Your task to perform on an android device: add a label to a message in the gmail app Image 0: 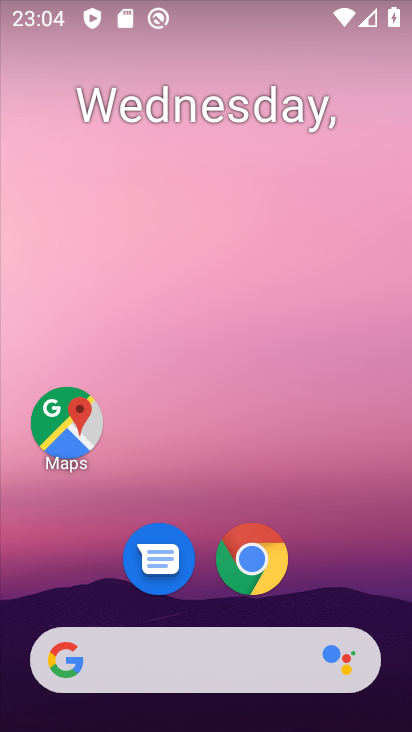
Step 0: drag from (212, 616) to (207, 126)
Your task to perform on an android device: add a label to a message in the gmail app Image 1: 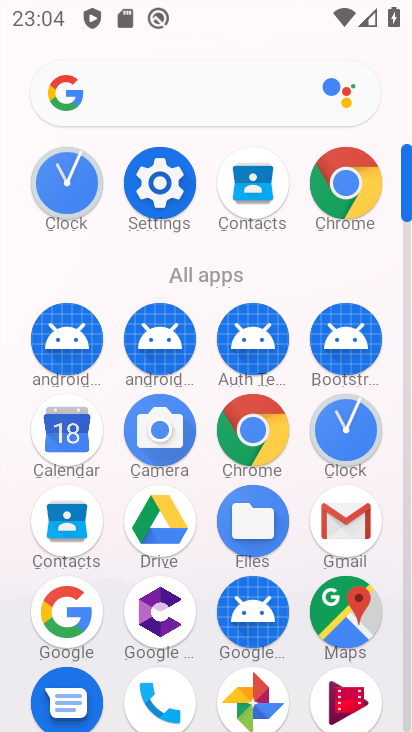
Step 1: click (343, 532)
Your task to perform on an android device: add a label to a message in the gmail app Image 2: 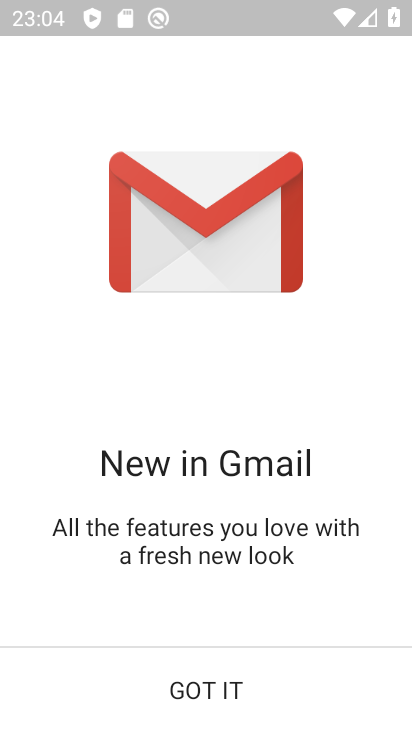
Step 2: click (226, 682)
Your task to perform on an android device: add a label to a message in the gmail app Image 3: 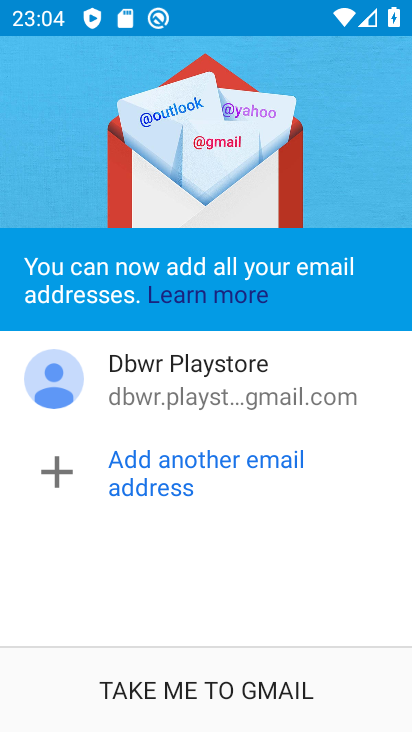
Step 3: click (212, 695)
Your task to perform on an android device: add a label to a message in the gmail app Image 4: 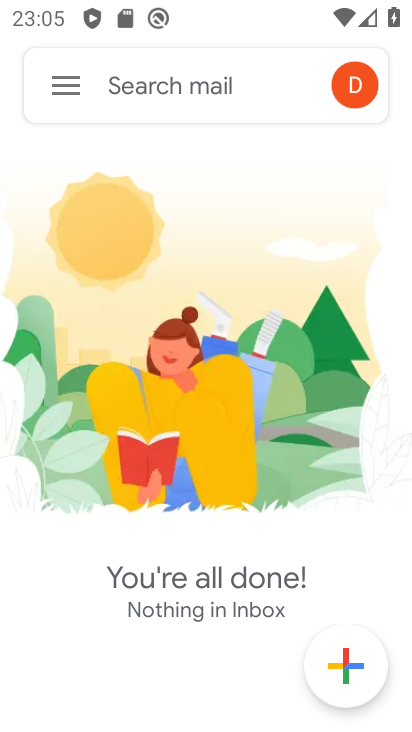
Step 4: click (68, 88)
Your task to perform on an android device: add a label to a message in the gmail app Image 5: 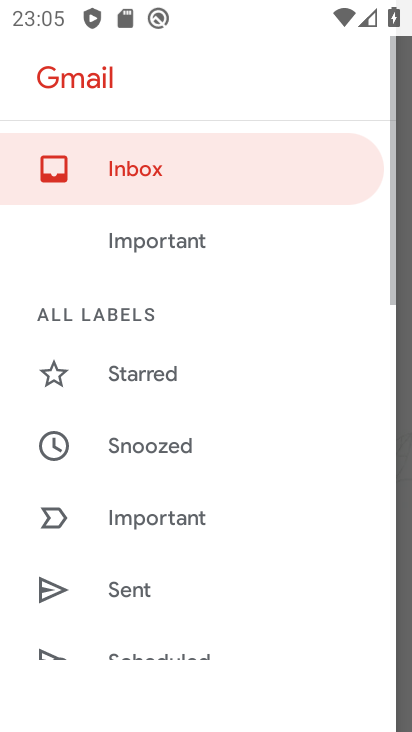
Step 5: drag from (131, 570) to (247, 191)
Your task to perform on an android device: add a label to a message in the gmail app Image 6: 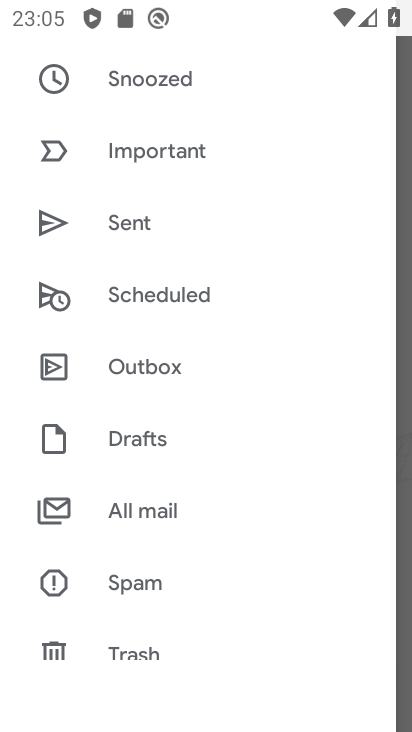
Step 6: click (161, 527)
Your task to perform on an android device: add a label to a message in the gmail app Image 7: 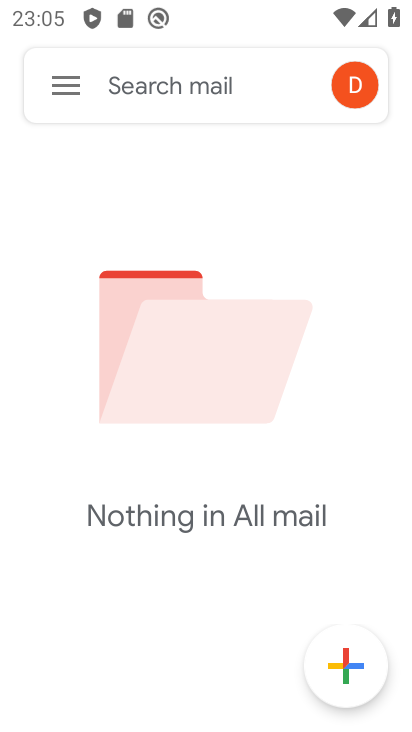
Step 7: task complete